Your task to perform on an android device: turn on data saver in the chrome app Image 0: 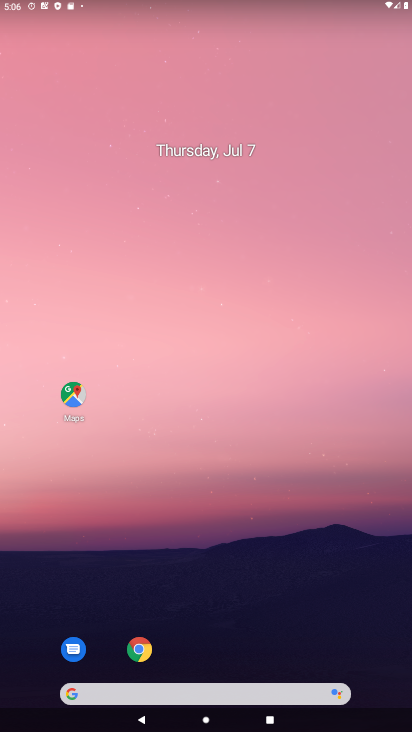
Step 0: drag from (387, 633) to (251, 5)
Your task to perform on an android device: turn on data saver in the chrome app Image 1: 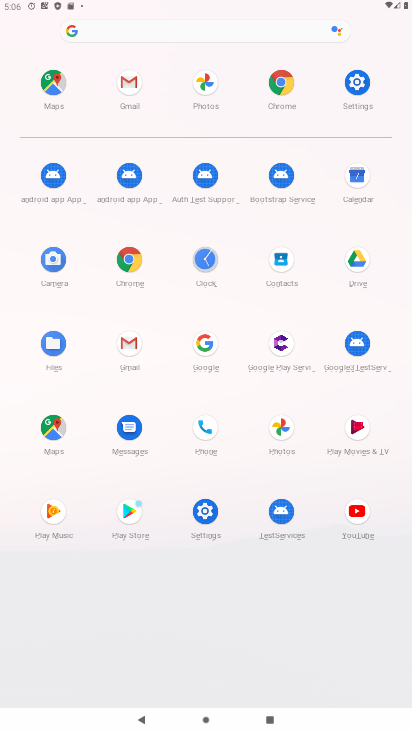
Step 1: click (280, 87)
Your task to perform on an android device: turn on data saver in the chrome app Image 2: 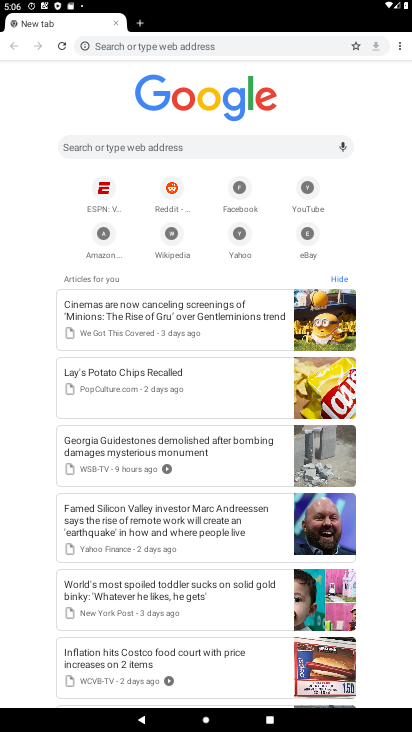
Step 2: click (390, 43)
Your task to perform on an android device: turn on data saver in the chrome app Image 3: 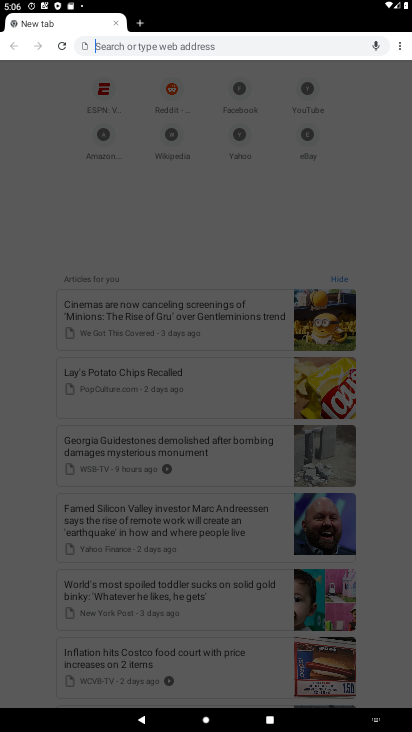
Step 3: click (398, 47)
Your task to perform on an android device: turn on data saver in the chrome app Image 4: 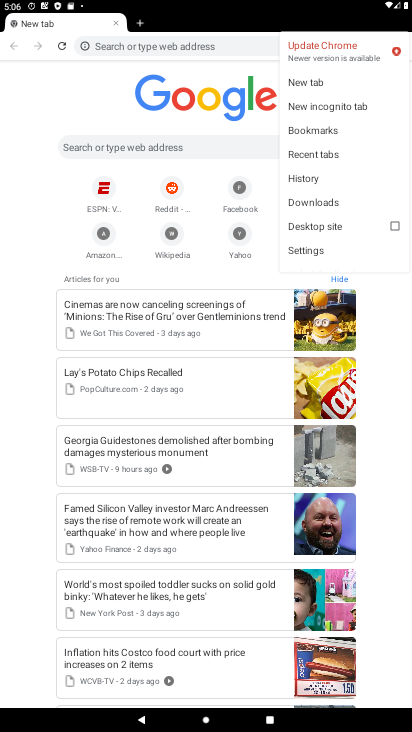
Step 4: click (320, 247)
Your task to perform on an android device: turn on data saver in the chrome app Image 5: 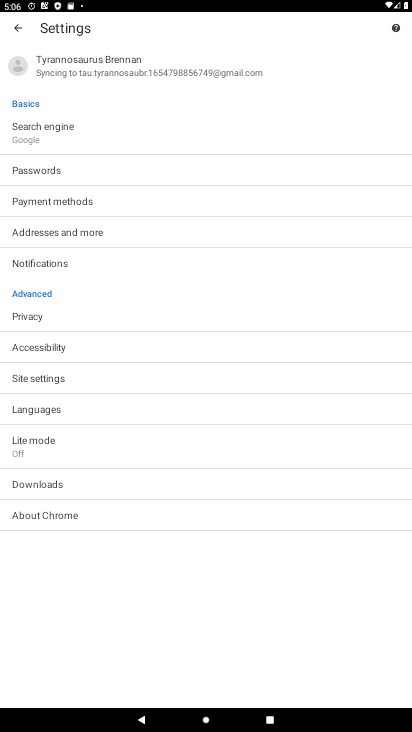
Step 5: click (64, 454)
Your task to perform on an android device: turn on data saver in the chrome app Image 6: 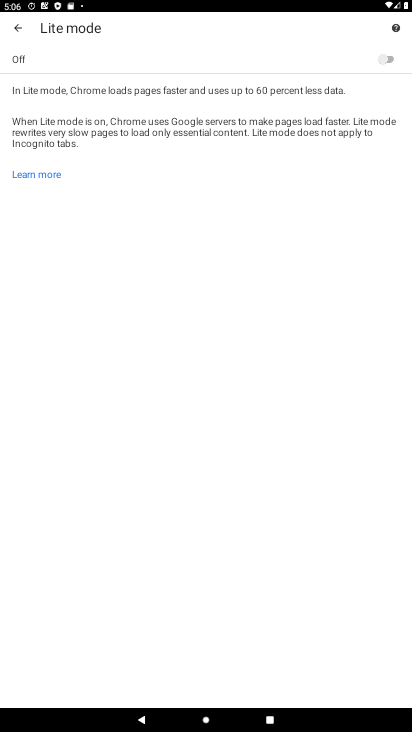
Step 6: click (395, 50)
Your task to perform on an android device: turn on data saver in the chrome app Image 7: 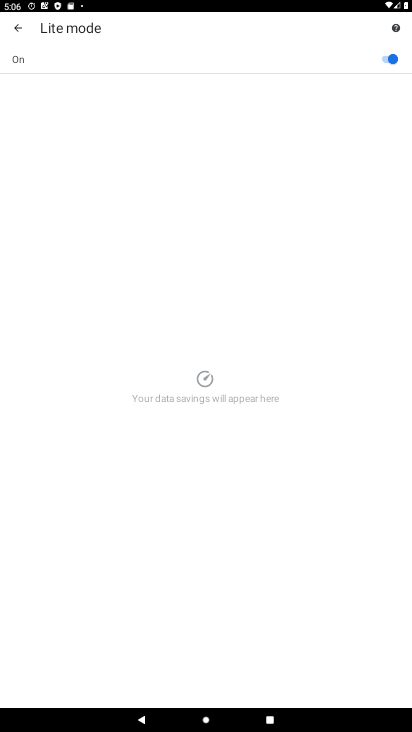
Step 7: task complete